Your task to perform on an android device: What's the weather going to be this weekend? Image 0: 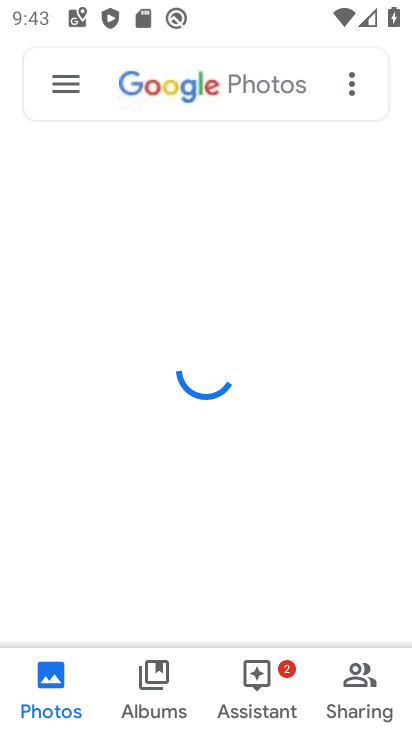
Step 0: press home button
Your task to perform on an android device: What's the weather going to be this weekend? Image 1: 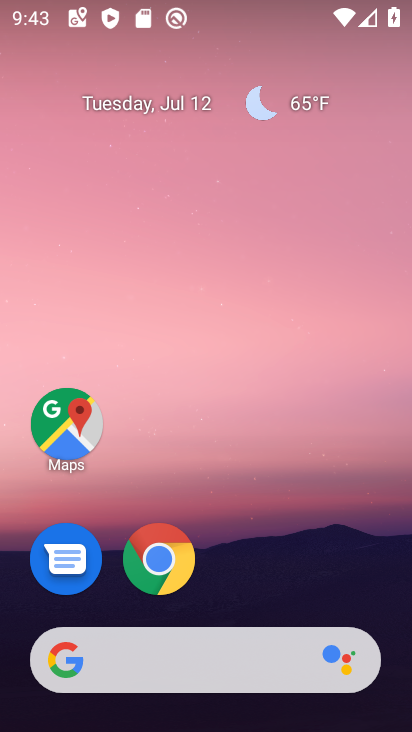
Step 1: click (202, 658)
Your task to perform on an android device: What's the weather going to be this weekend? Image 2: 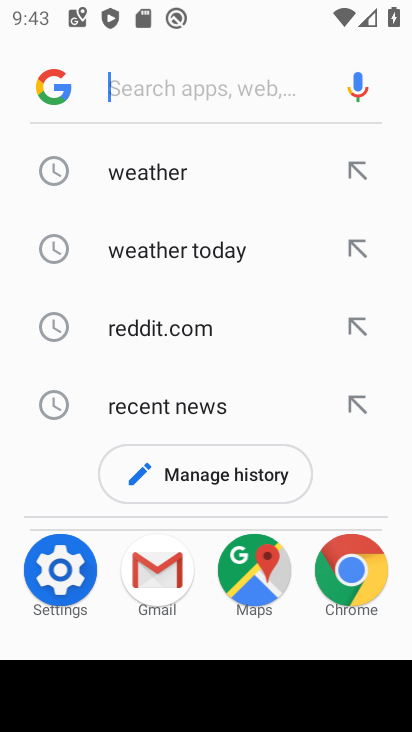
Step 2: click (186, 179)
Your task to perform on an android device: What's the weather going to be this weekend? Image 3: 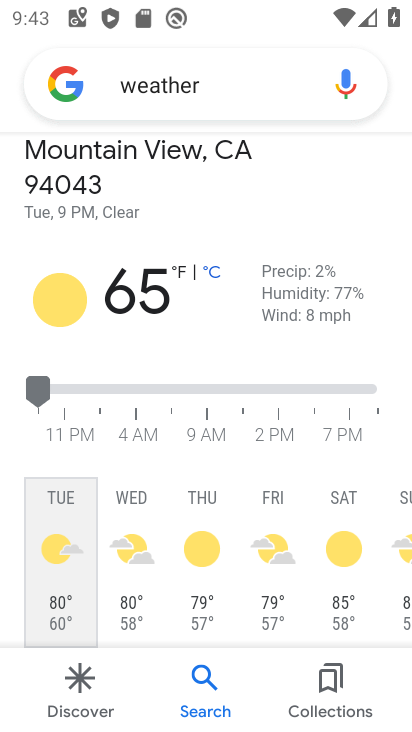
Step 3: click (341, 501)
Your task to perform on an android device: What's the weather going to be this weekend? Image 4: 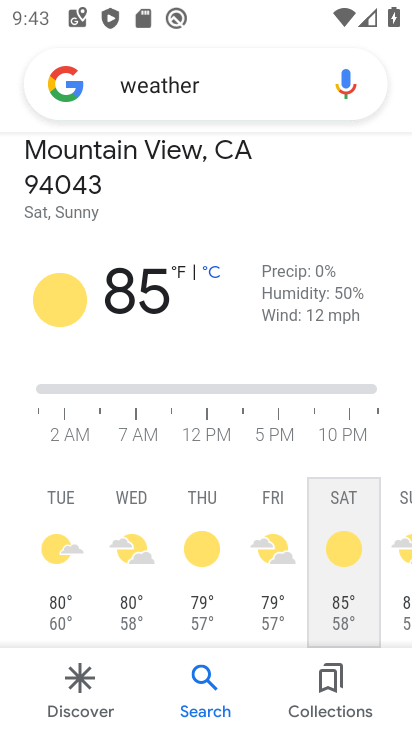
Step 4: task complete